Your task to perform on an android device: Open calendar and show me the first week of next month Image 0: 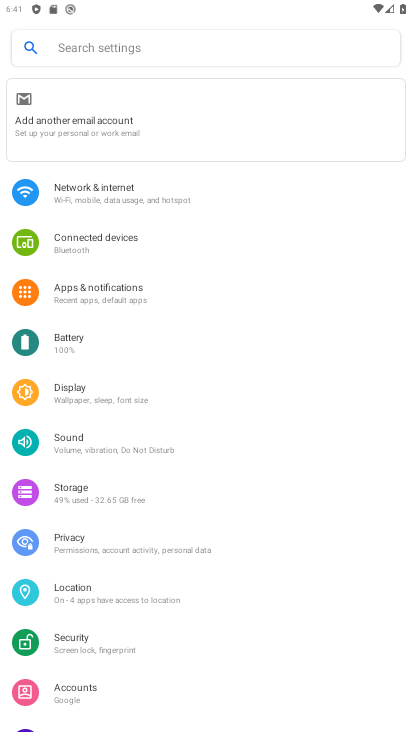
Step 0: press home button
Your task to perform on an android device: Open calendar and show me the first week of next month Image 1: 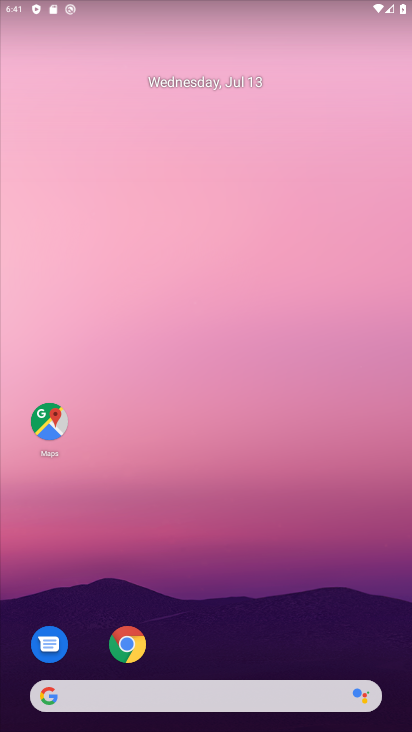
Step 1: drag from (237, 593) to (108, 3)
Your task to perform on an android device: Open calendar and show me the first week of next month Image 2: 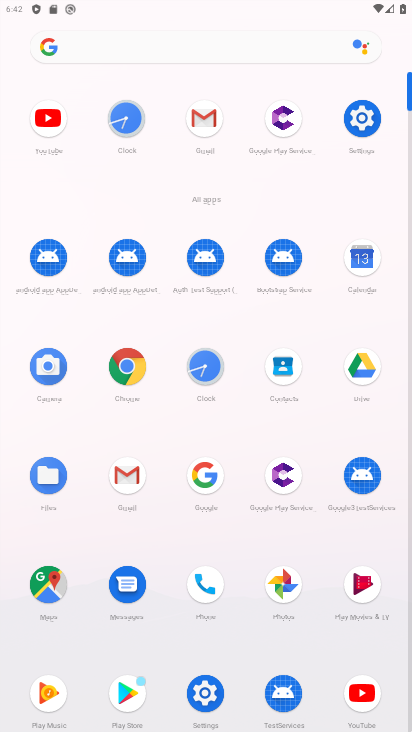
Step 2: click (362, 253)
Your task to perform on an android device: Open calendar and show me the first week of next month Image 3: 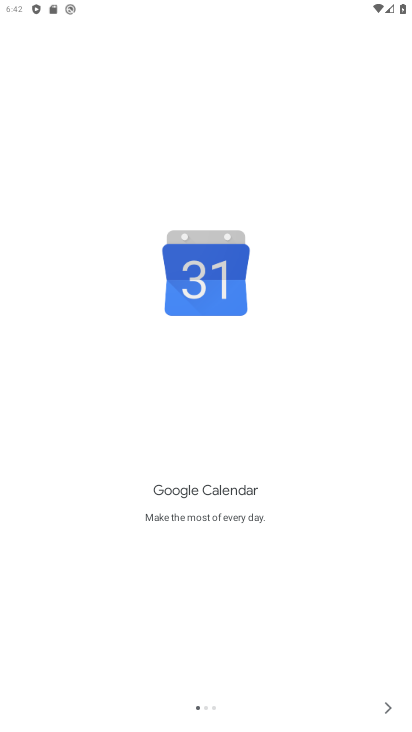
Step 3: click (391, 713)
Your task to perform on an android device: Open calendar and show me the first week of next month Image 4: 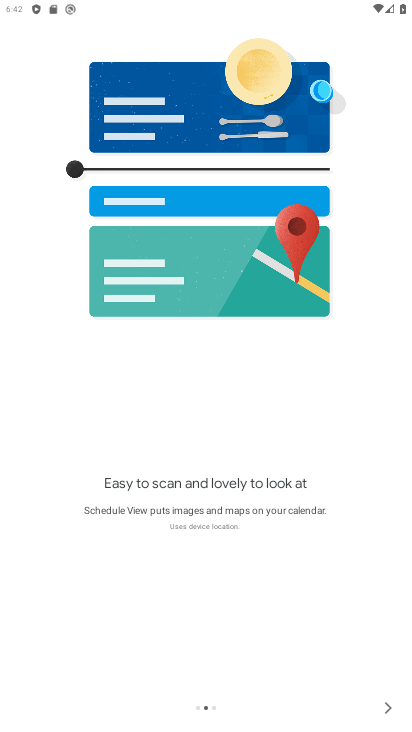
Step 4: click (391, 713)
Your task to perform on an android device: Open calendar and show me the first week of next month Image 5: 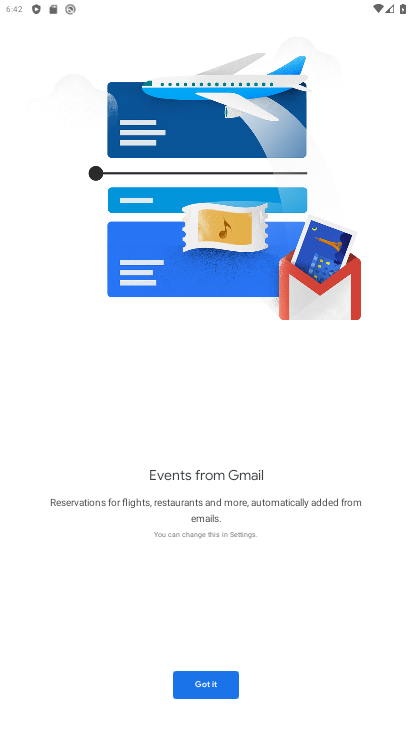
Step 5: click (222, 683)
Your task to perform on an android device: Open calendar and show me the first week of next month Image 6: 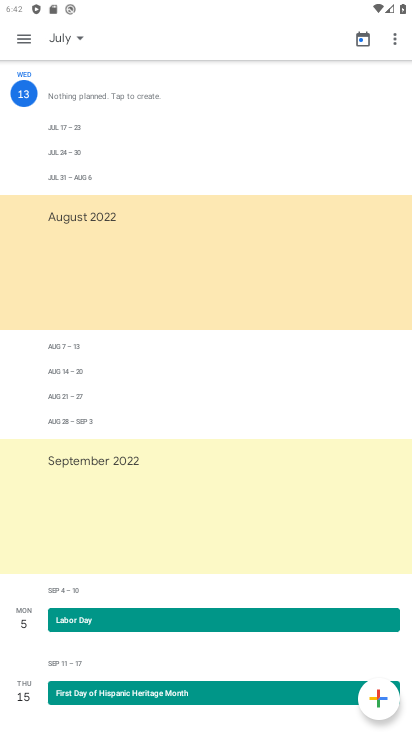
Step 6: click (12, 37)
Your task to perform on an android device: Open calendar and show me the first week of next month Image 7: 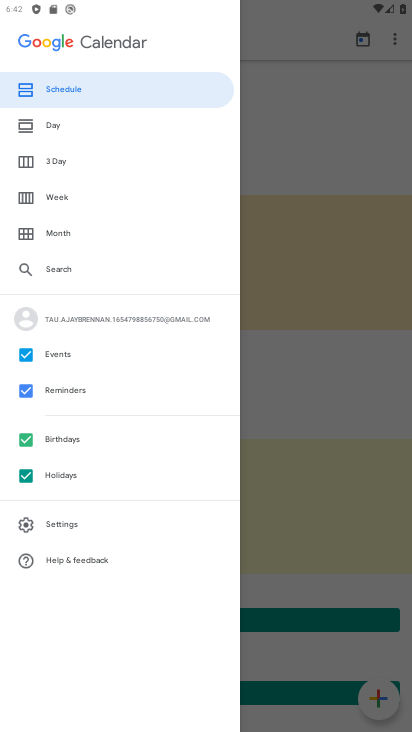
Step 7: click (62, 191)
Your task to perform on an android device: Open calendar and show me the first week of next month Image 8: 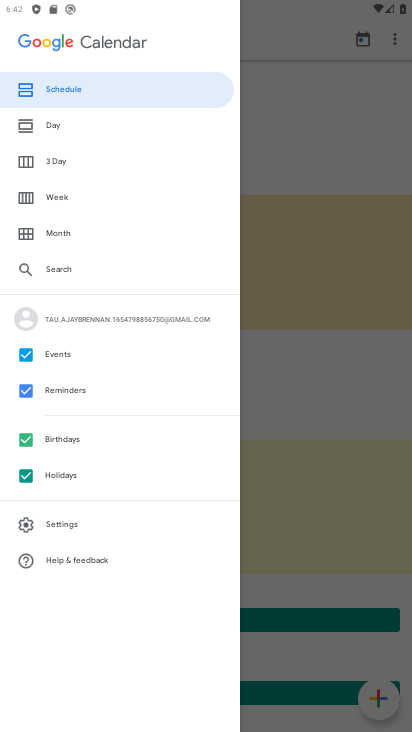
Step 8: click (53, 198)
Your task to perform on an android device: Open calendar and show me the first week of next month Image 9: 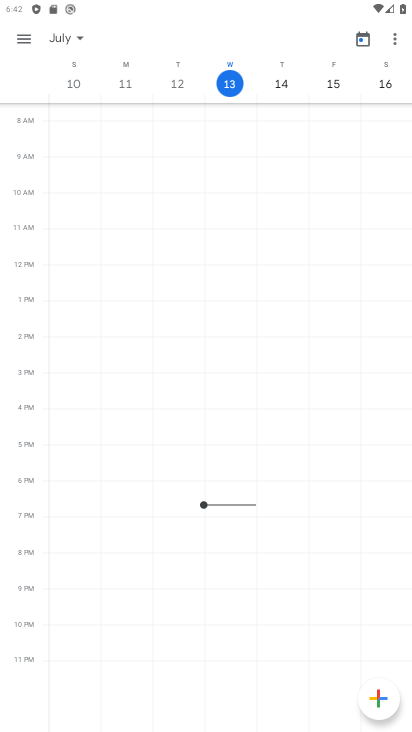
Step 9: click (77, 40)
Your task to perform on an android device: Open calendar and show me the first week of next month Image 10: 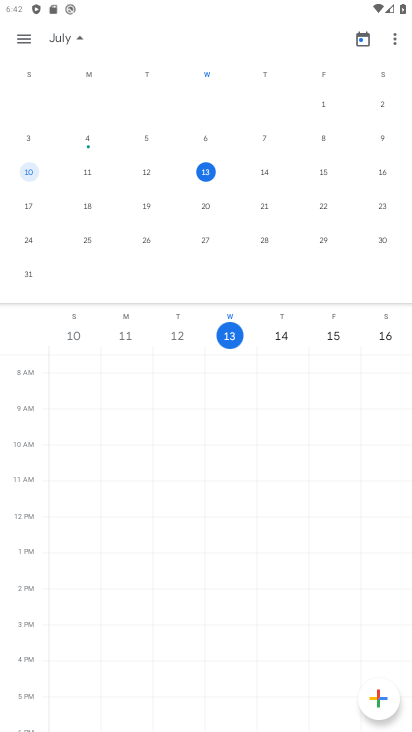
Step 10: drag from (373, 222) to (5, 71)
Your task to perform on an android device: Open calendar and show me the first week of next month Image 11: 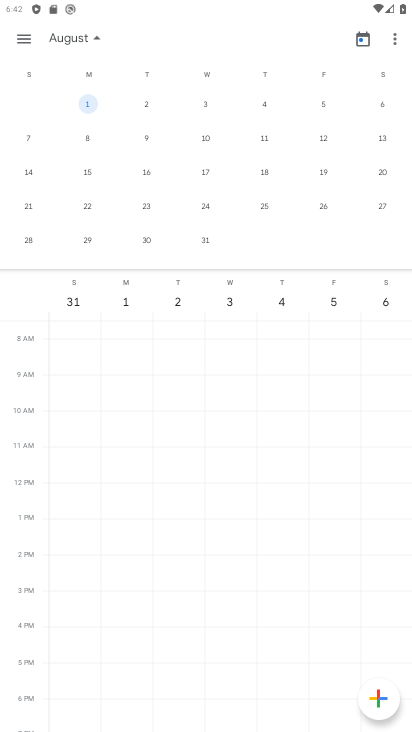
Step 11: click (90, 103)
Your task to perform on an android device: Open calendar and show me the first week of next month Image 12: 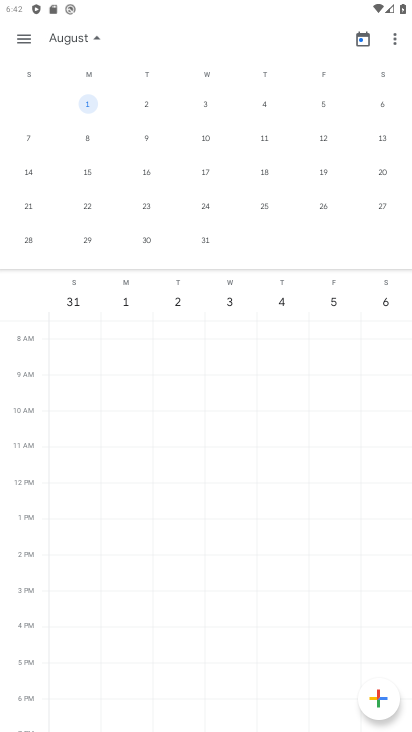
Step 12: task complete